Your task to perform on an android device: Open wifi settings Image 0: 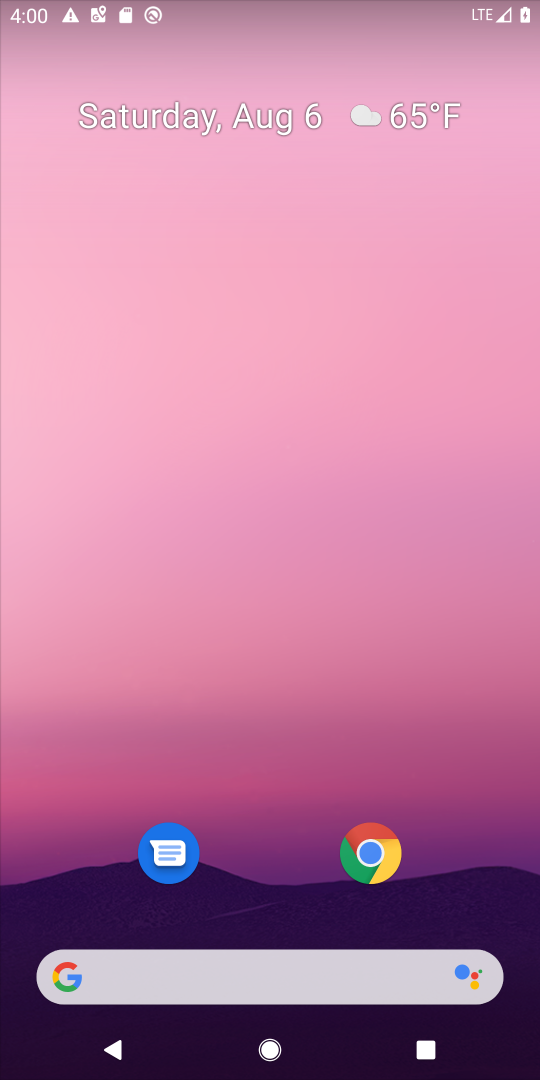
Step 0: drag from (149, 10) to (147, 827)
Your task to perform on an android device: Open wifi settings Image 1: 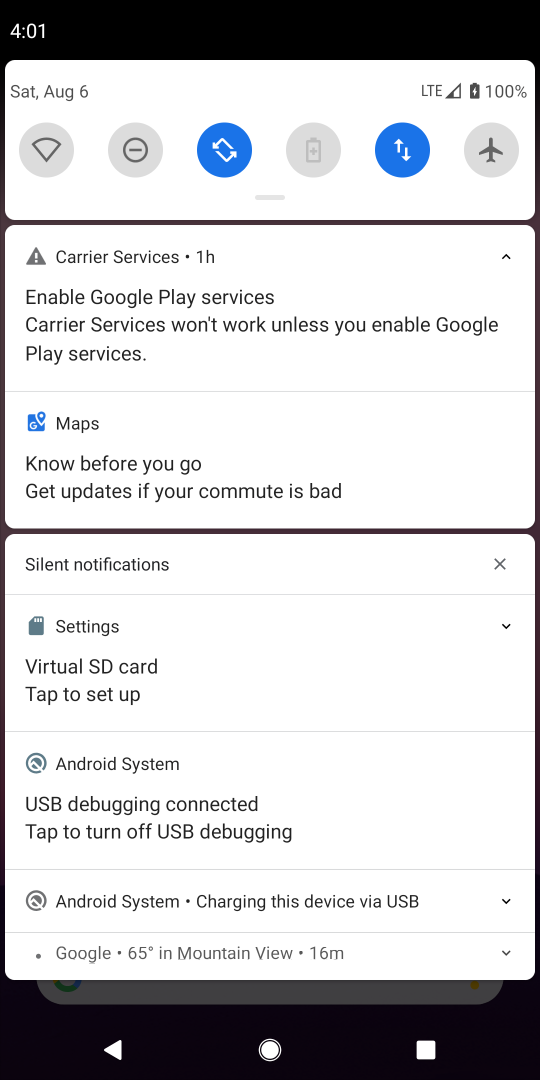
Step 1: click (46, 152)
Your task to perform on an android device: Open wifi settings Image 2: 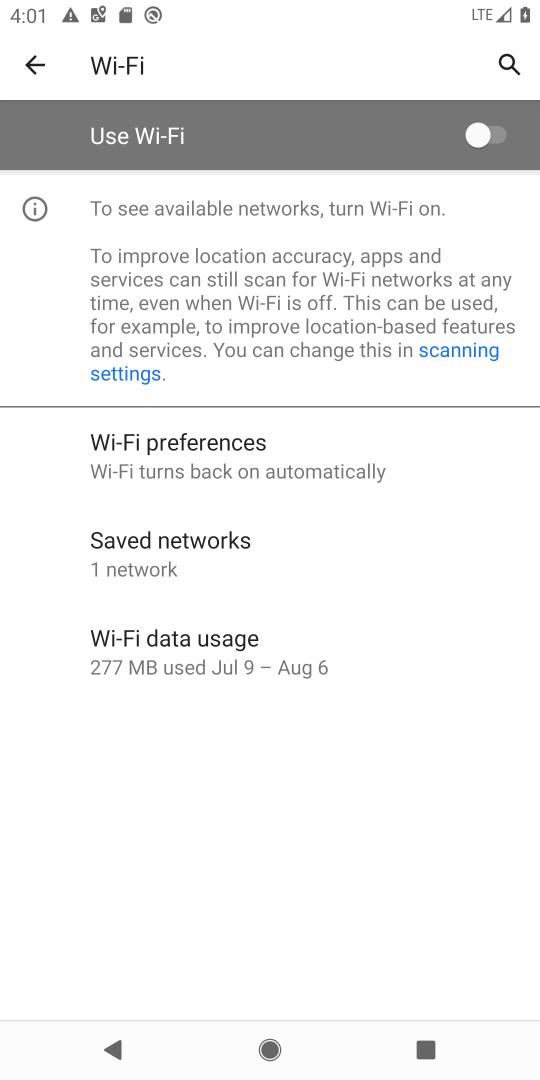
Step 2: task complete